Your task to perform on an android device: Do I have any events today? Image 0: 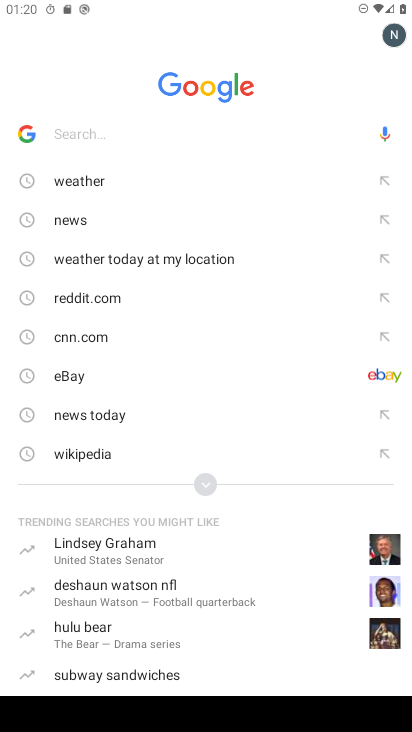
Step 0: press home button
Your task to perform on an android device: Do I have any events today? Image 1: 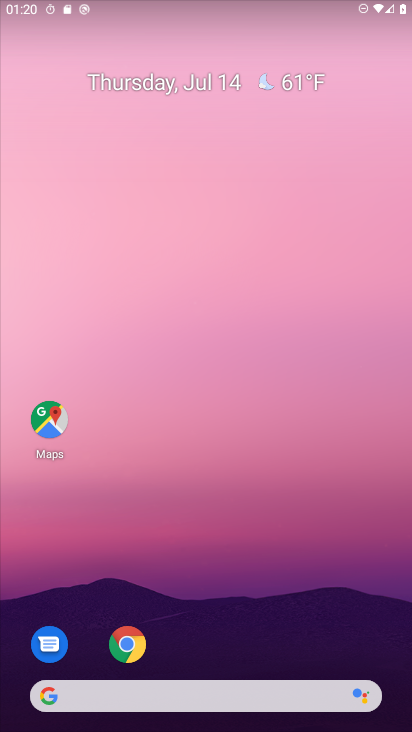
Step 1: drag from (323, 453) to (338, 84)
Your task to perform on an android device: Do I have any events today? Image 2: 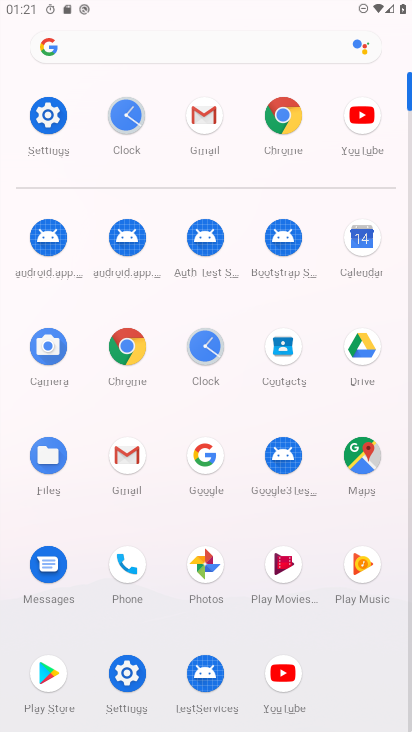
Step 2: click (367, 232)
Your task to perform on an android device: Do I have any events today? Image 3: 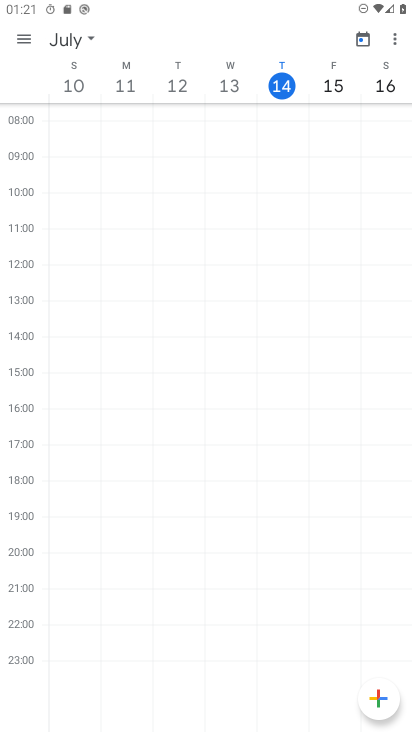
Step 3: task complete